Your task to perform on an android device: toggle airplane mode Image 0: 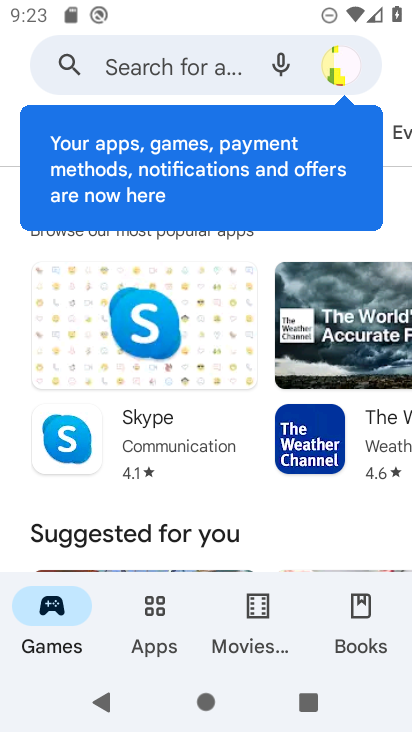
Step 0: press home button
Your task to perform on an android device: toggle airplane mode Image 1: 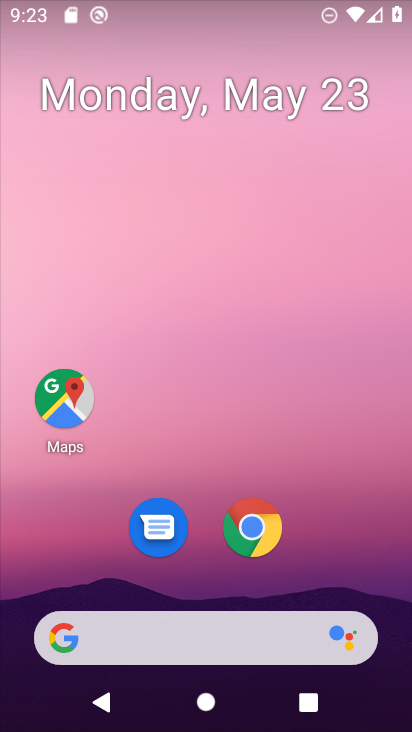
Step 1: drag from (252, 428) to (294, 23)
Your task to perform on an android device: toggle airplane mode Image 2: 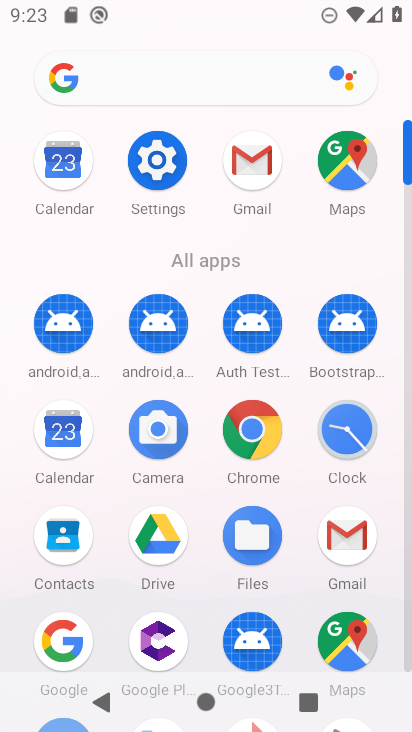
Step 2: click (174, 171)
Your task to perform on an android device: toggle airplane mode Image 3: 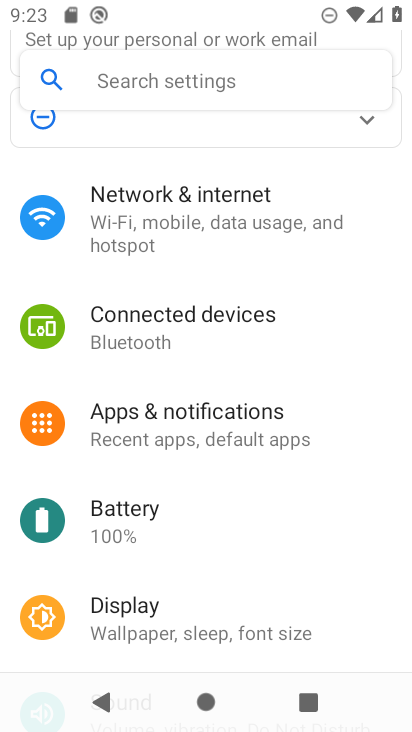
Step 3: click (232, 222)
Your task to perform on an android device: toggle airplane mode Image 4: 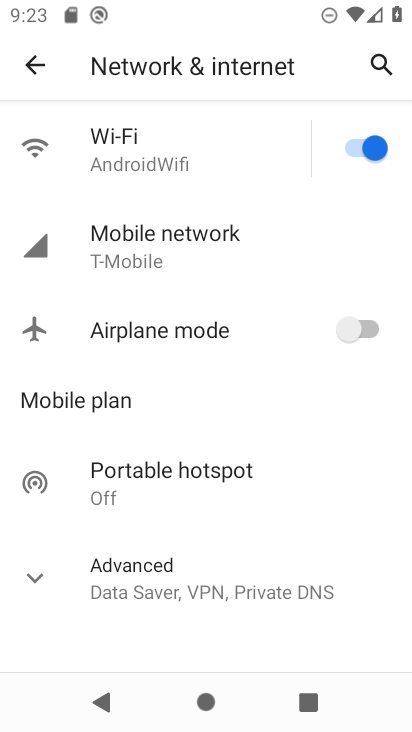
Step 4: click (354, 323)
Your task to perform on an android device: toggle airplane mode Image 5: 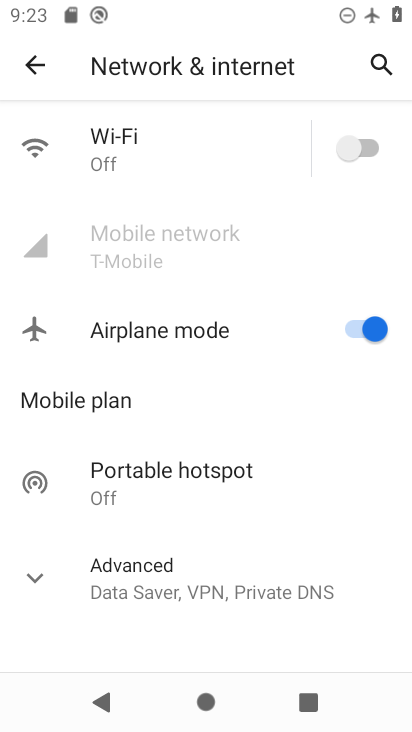
Step 5: task complete